Your task to perform on an android device: toggle priority inbox in the gmail app Image 0: 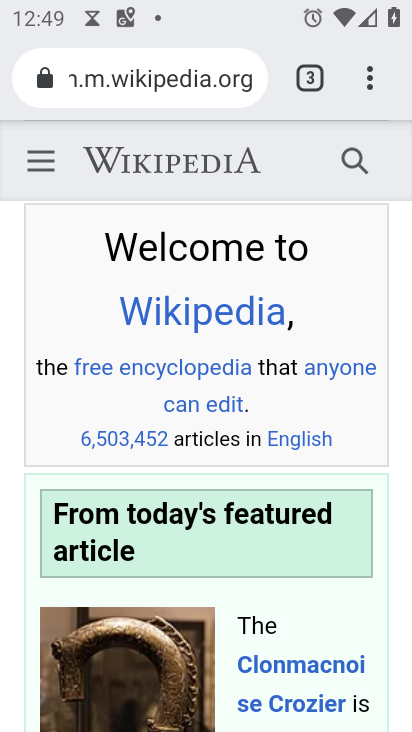
Step 0: drag from (360, 79) to (177, 607)
Your task to perform on an android device: toggle priority inbox in the gmail app Image 1: 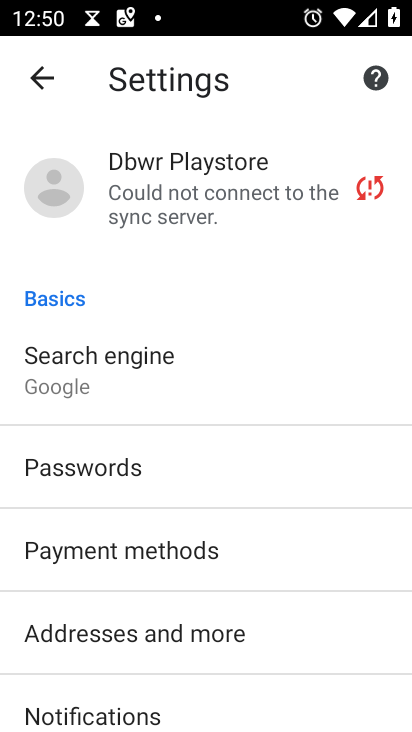
Step 1: drag from (130, 666) to (133, 235)
Your task to perform on an android device: toggle priority inbox in the gmail app Image 2: 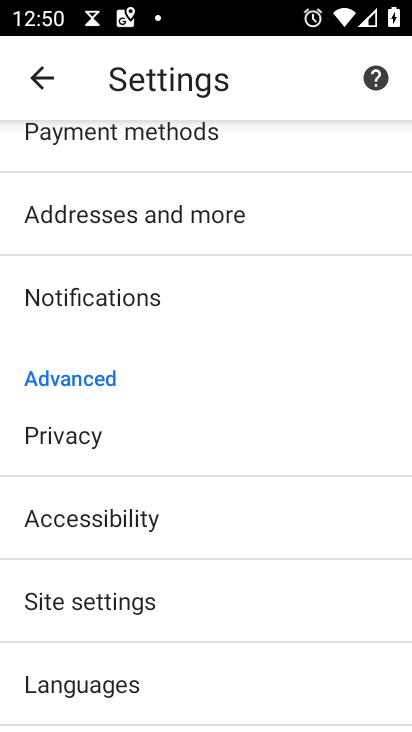
Step 2: drag from (185, 609) to (214, 171)
Your task to perform on an android device: toggle priority inbox in the gmail app Image 3: 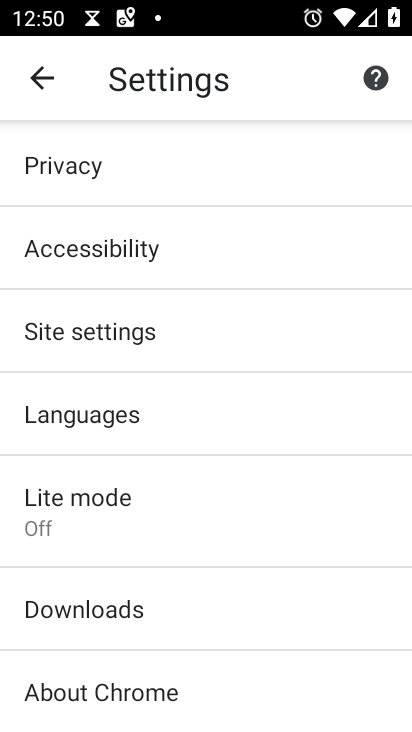
Step 3: drag from (185, 680) to (219, 152)
Your task to perform on an android device: toggle priority inbox in the gmail app Image 4: 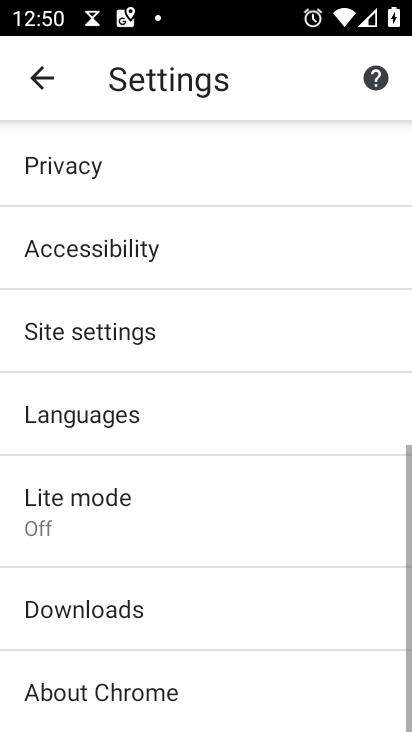
Step 4: click (145, 334)
Your task to perform on an android device: toggle priority inbox in the gmail app Image 5: 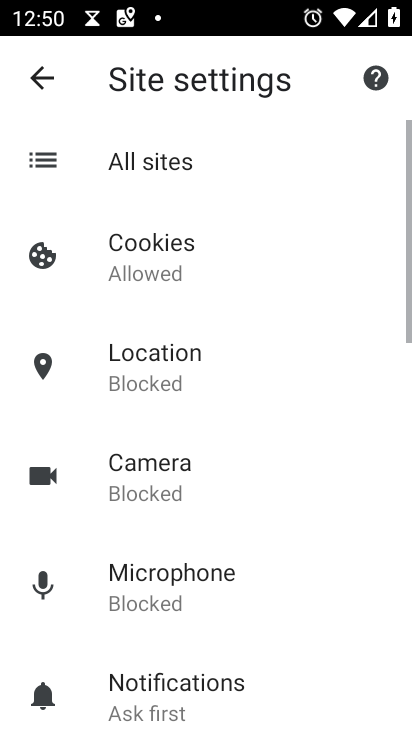
Step 5: drag from (175, 637) to (209, 113)
Your task to perform on an android device: toggle priority inbox in the gmail app Image 6: 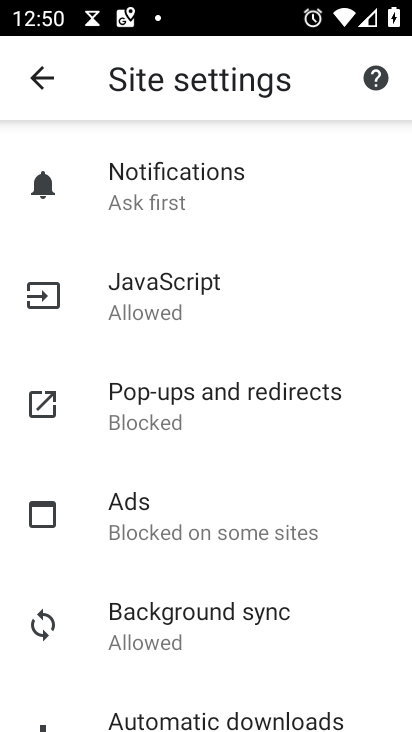
Step 6: drag from (203, 610) to (268, 123)
Your task to perform on an android device: toggle priority inbox in the gmail app Image 7: 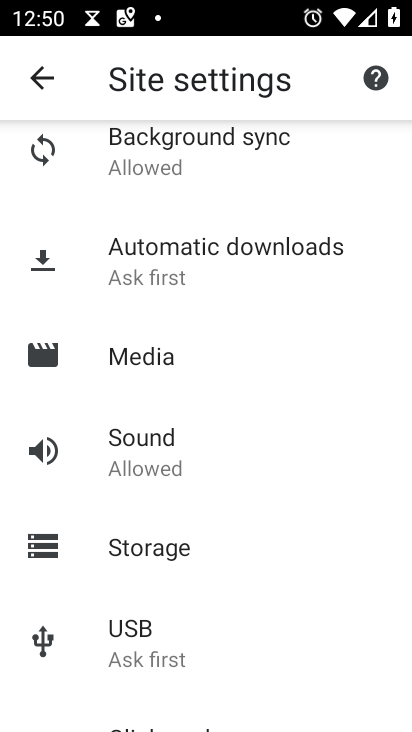
Step 7: drag from (295, 588) to (384, 124)
Your task to perform on an android device: toggle priority inbox in the gmail app Image 8: 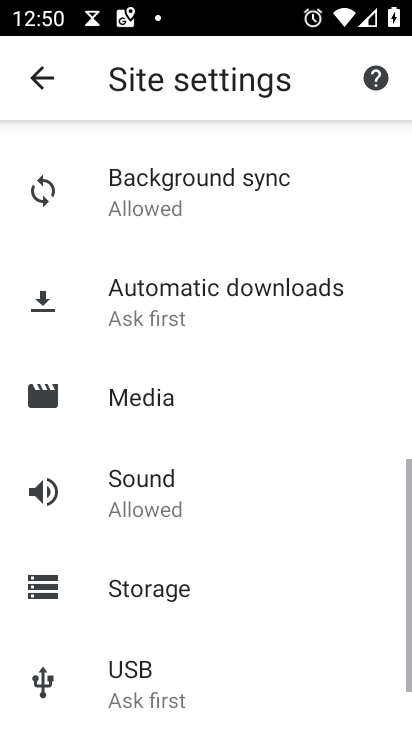
Step 8: drag from (193, 663) to (129, 147)
Your task to perform on an android device: toggle priority inbox in the gmail app Image 9: 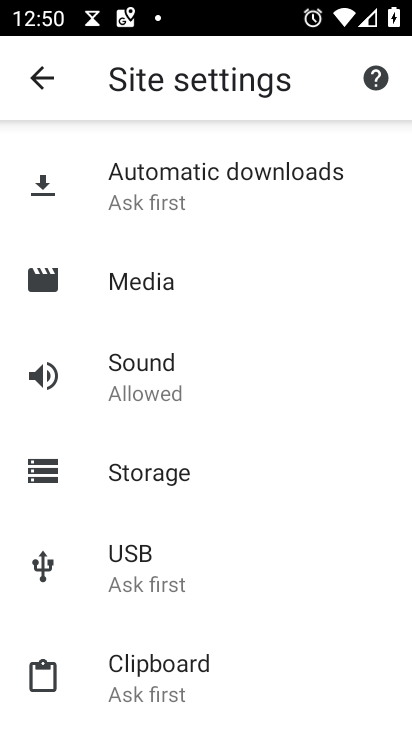
Step 9: click (45, 102)
Your task to perform on an android device: toggle priority inbox in the gmail app Image 10: 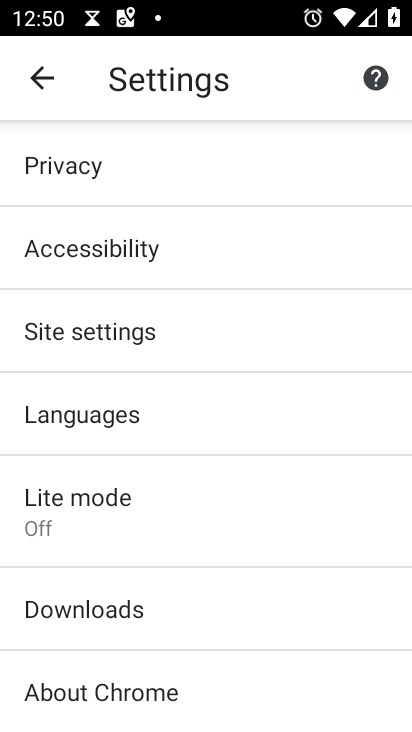
Step 10: click (159, 329)
Your task to perform on an android device: toggle priority inbox in the gmail app Image 11: 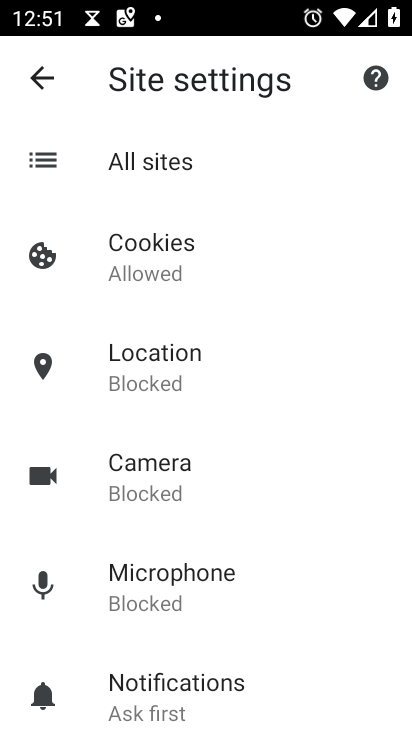
Step 11: click (36, 76)
Your task to perform on an android device: toggle priority inbox in the gmail app Image 12: 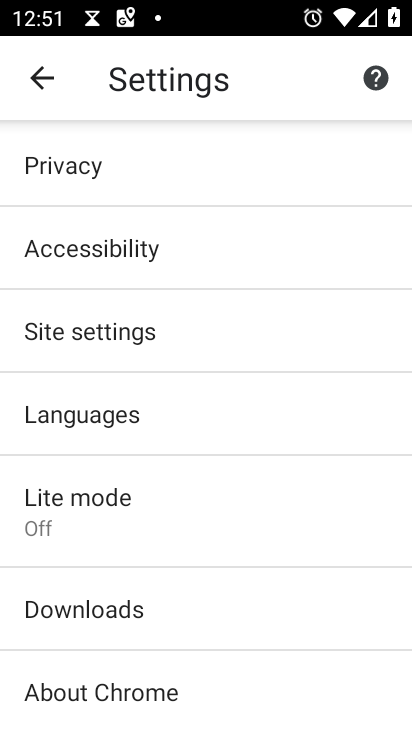
Step 12: click (45, 111)
Your task to perform on an android device: toggle priority inbox in the gmail app Image 13: 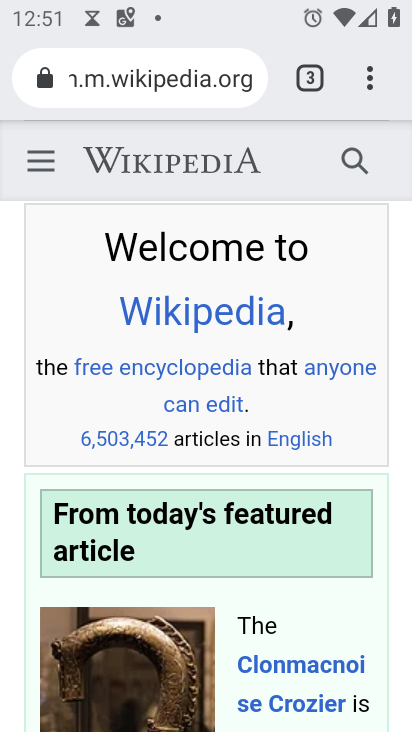
Step 13: press home button
Your task to perform on an android device: toggle priority inbox in the gmail app Image 14: 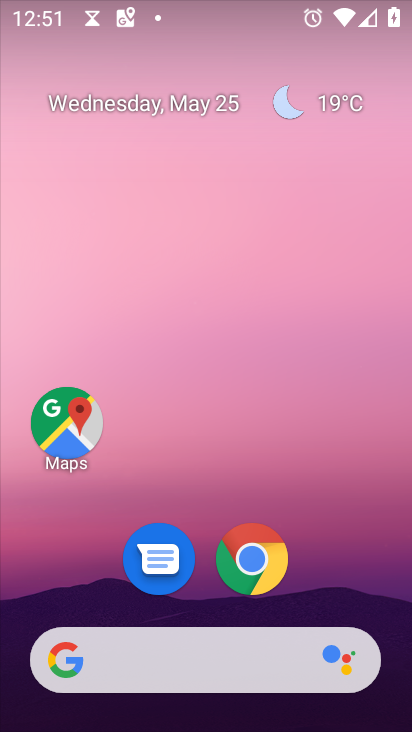
Step 14: drag from (350, 560) to (319, 70)
Your task to perform on an android device: toggle priority inbox in the gmail app Image 15: 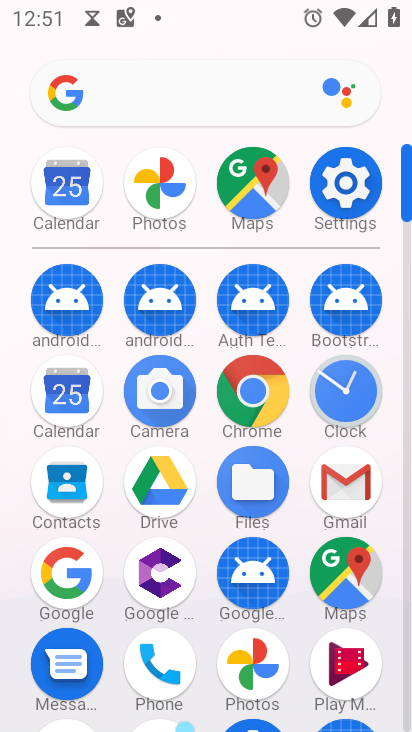
Step 15: click (345, 465)
Your task to perform on an android device: toggle priority inbox in the gmail app Image 16: 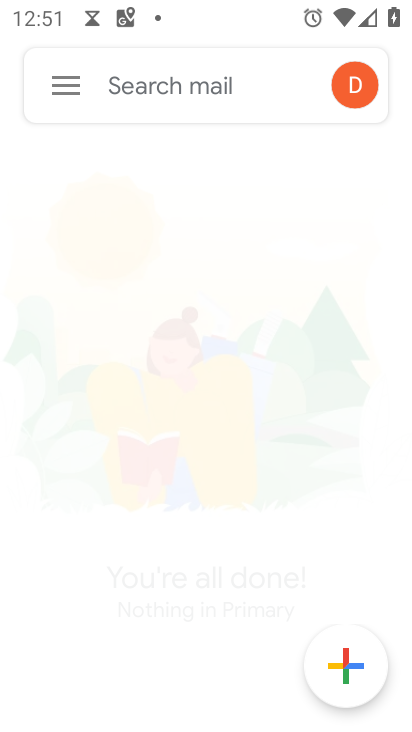
Step 16: click (47, 76)
Your task to perform on an android device: toggle priority inbox in the gmail app Image 17: 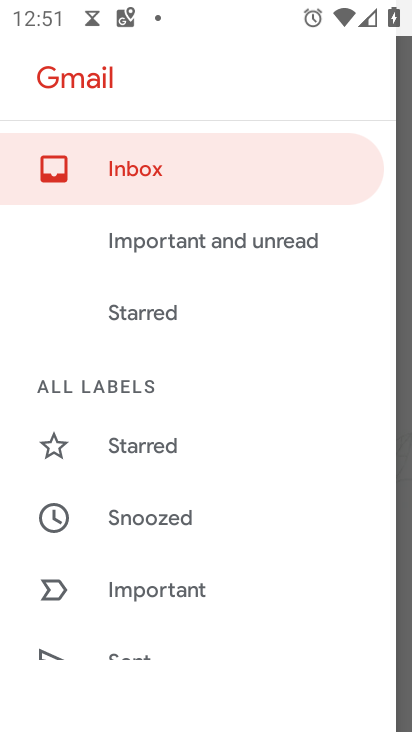
Step 17: drag from (242, 639) to (199, 228)
Your task to perform on an android device: toggle priority inbox in the gmail app Image 18: 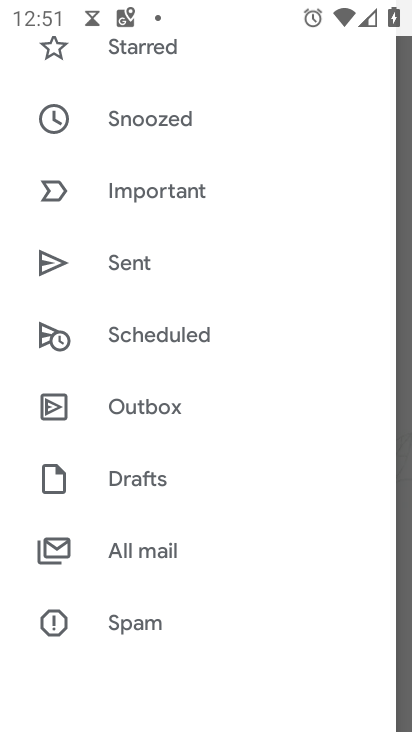
Step 18: drag from (242, 612) to (238, 206)
Your task to perform on an android device: toggle priority inbox in the gmail app Image 19: 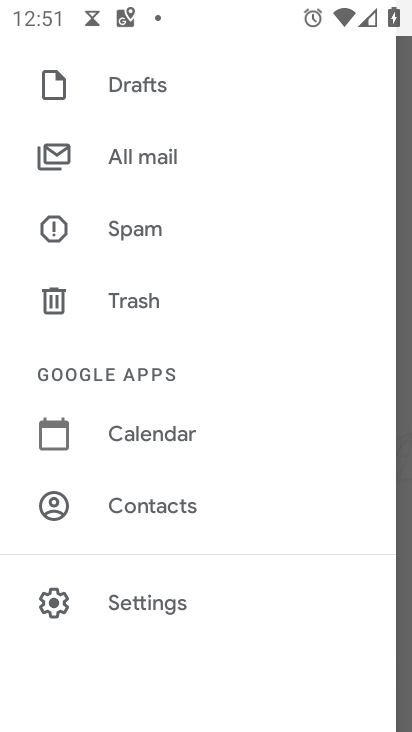
Step 19: click (137, 609)
Your task to perform on an android device: toggle priority inbox in the gmail app Image 20: 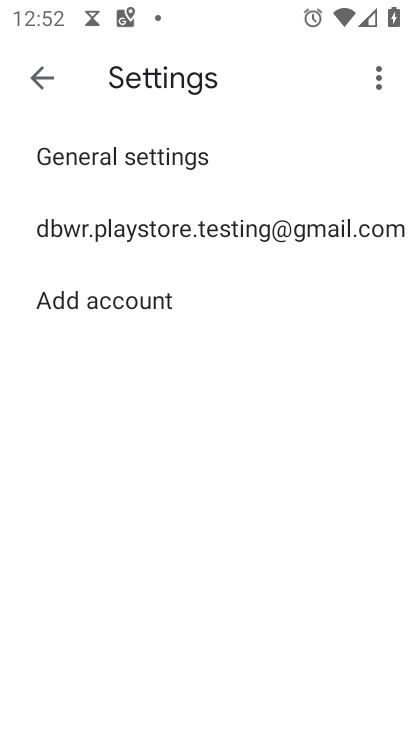
Step 20: click (189, 224)
Your task to perform on an android device: toggle priority inbox in the gmail app Image 21: 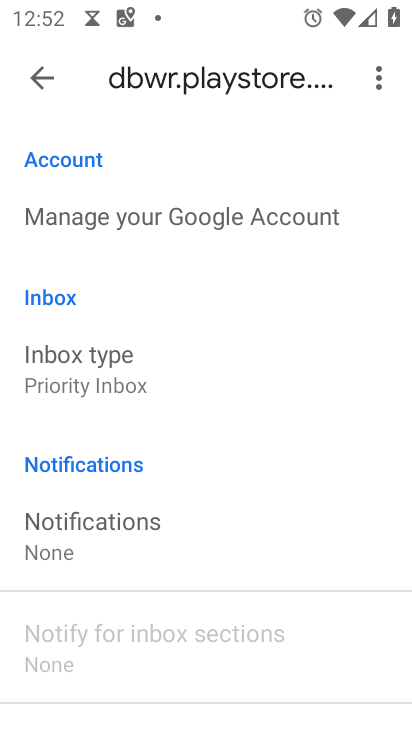
Step 21: click (69, 388)
Your task to perform on an android device: toggle priority inbox in the gmail app Image 22: 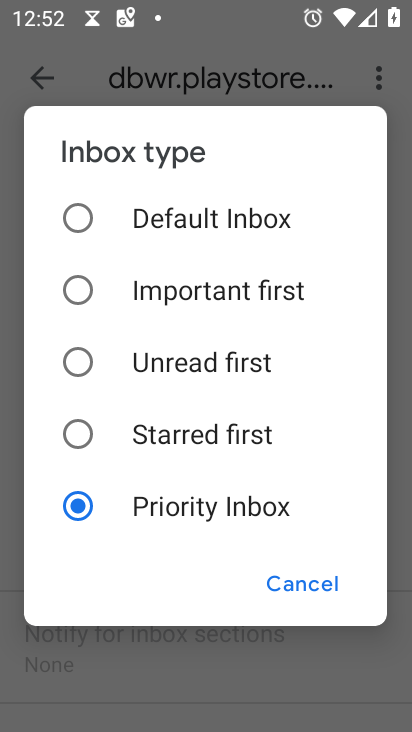
Step 22: click (84, 217)
Your task to perform on an android device: toggle priority inbox in the gmail app Image 23: 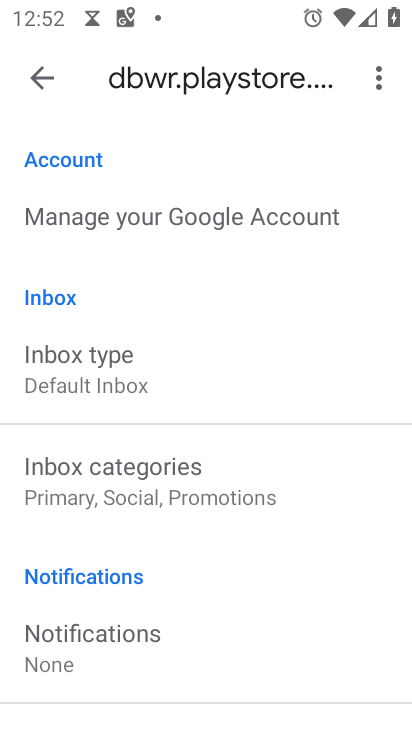
Step 23: task complete